Your task to perform on an android device: allow notifications from all sites in the chrome app Image 0: 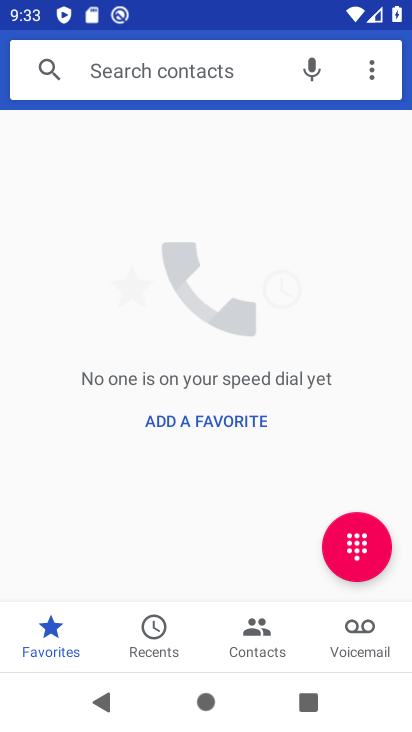
Step 0: task complete